Your task to perform on an android device: Search for "razer deathadder" on newegg.com, select the first entry, add it to the cart, then select checkout. Image 0: 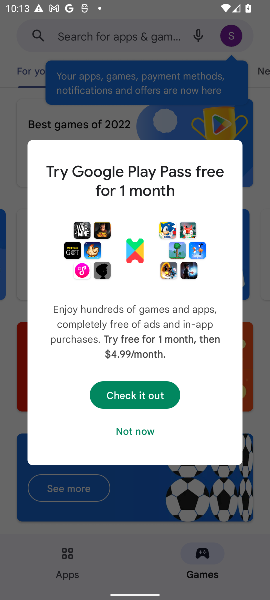
Step 0: task complete